Your task to perform on an android device: Open Reddit.com Image 0: 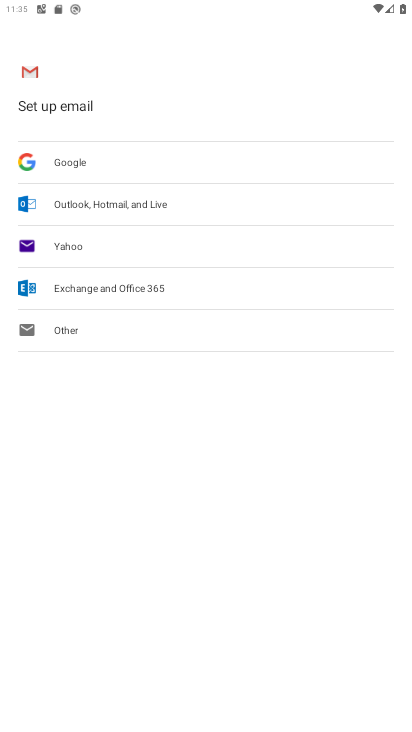
Step 0: press home button
Your task to perform on an android device: Open Reddit.com Image 1: 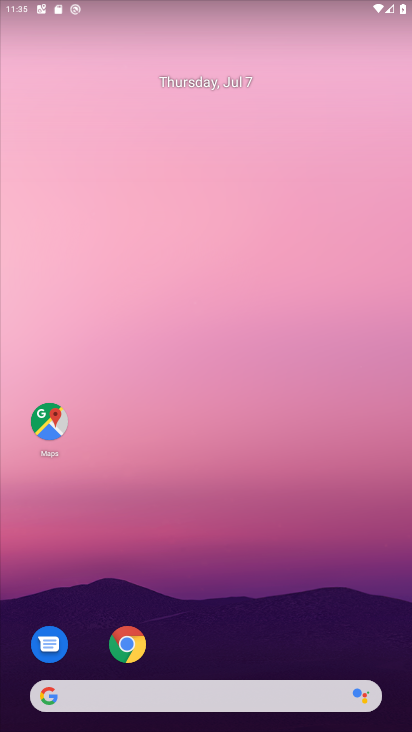
Step 1: click (113, 687)
Your task to perform on an android device: Open Reddit.com Image 2: 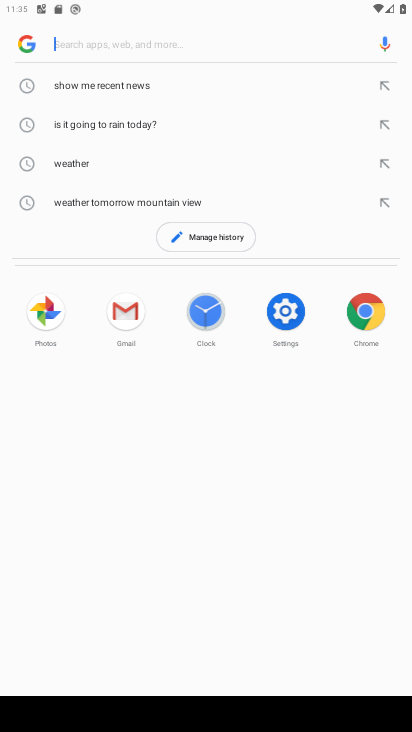
Step 2: click (91, 699)
Your task to perform on an android device: Open Reddit.com Image 3: 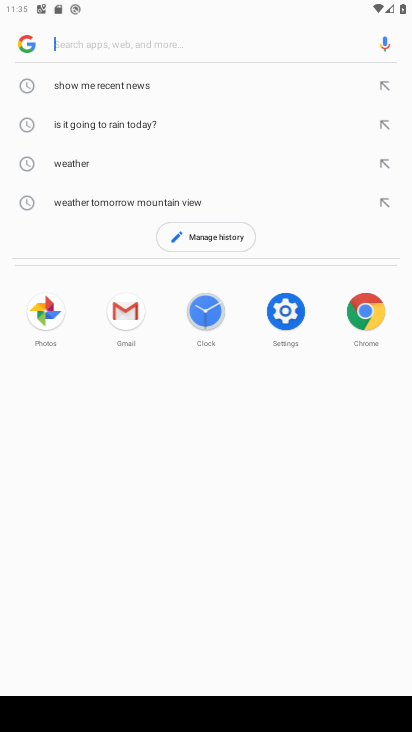
Step 3: type "Reddit.com"
Your task to perform on an android device: Open Reddit.com Image 4: 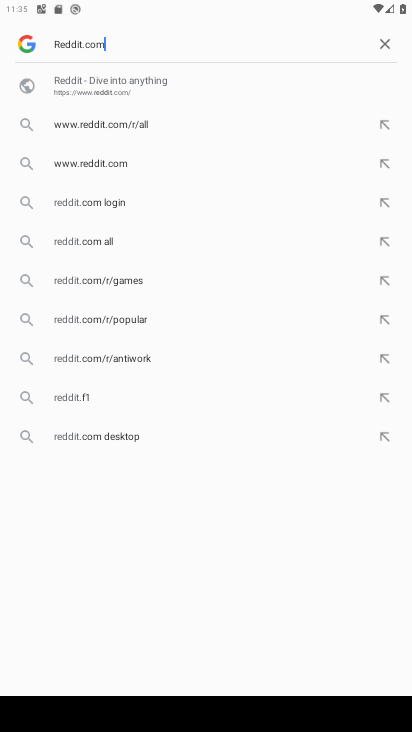
Step 4: type ""
Your task to perform on an android device: Open Reddit.com Image 5: 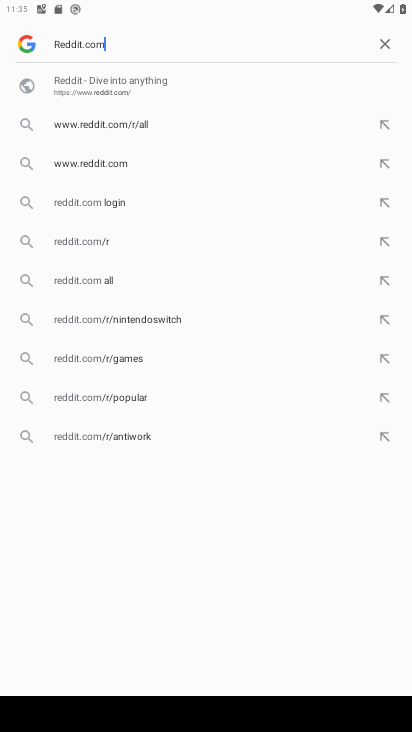
Step 5: click (78, 158)
Your task to perform on an android device: Open Reddit.com Image 6: 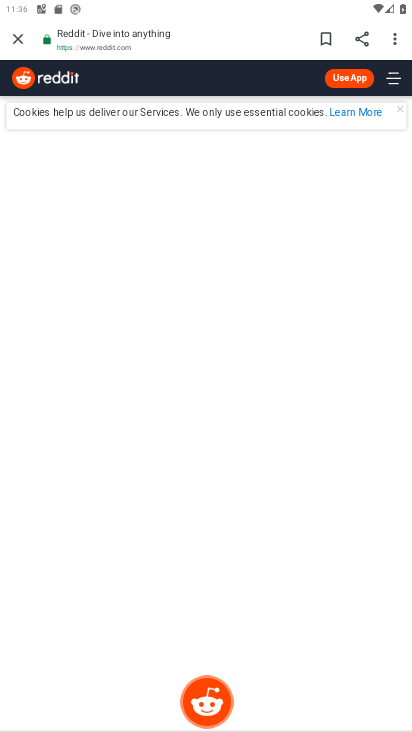
Step 6: task complete